Your task to perform on an android device: Open the map Image 0: 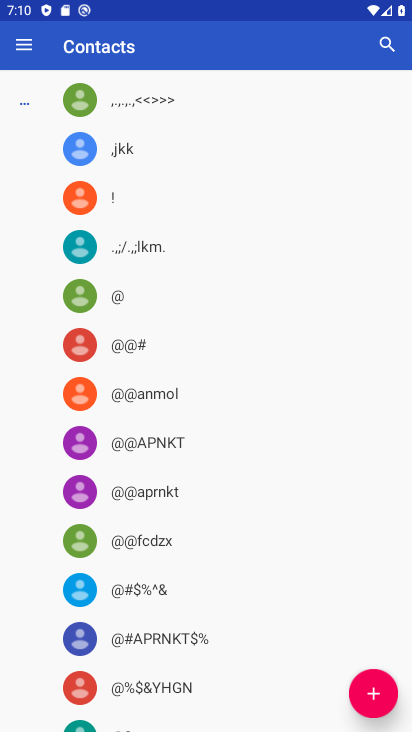
Step 0: press home button
Your task to perform on an android device: Open the map Image 1: 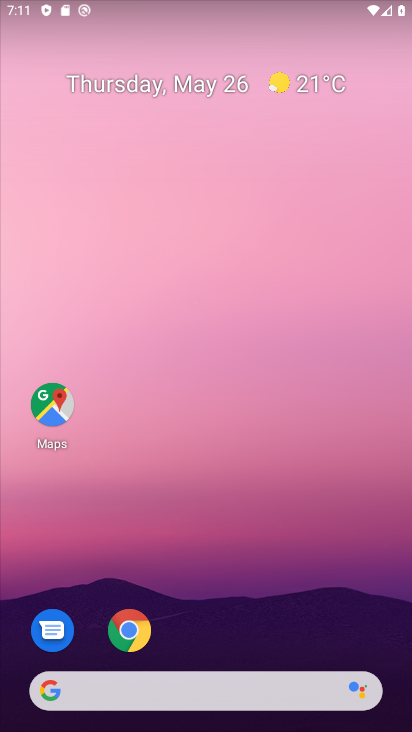
Step 1: click (50, 407)
Your task to perform on an android device: Open the map Image 2: 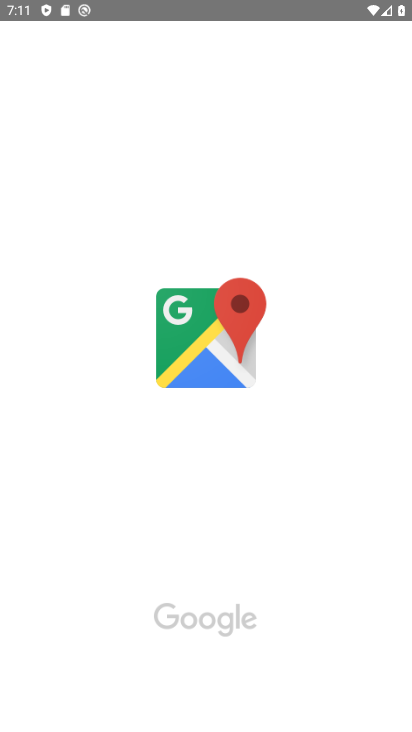
Step 2: click (269, 337)
Your task to perform on an android device: Open the map Image 3: 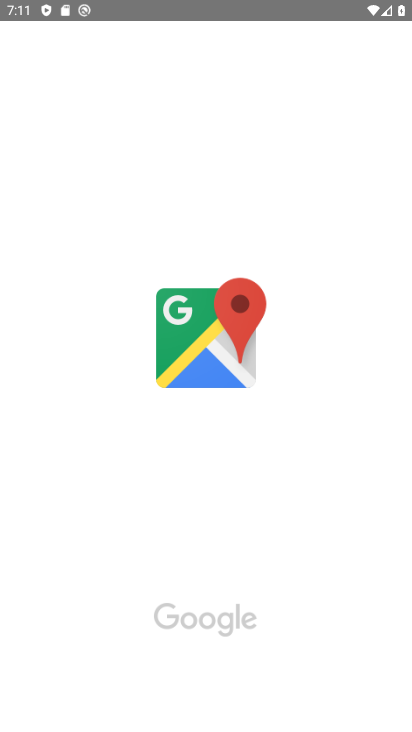
Step 3: click (269, 337)
Your task to perform on an android device: Open the map Image 4: 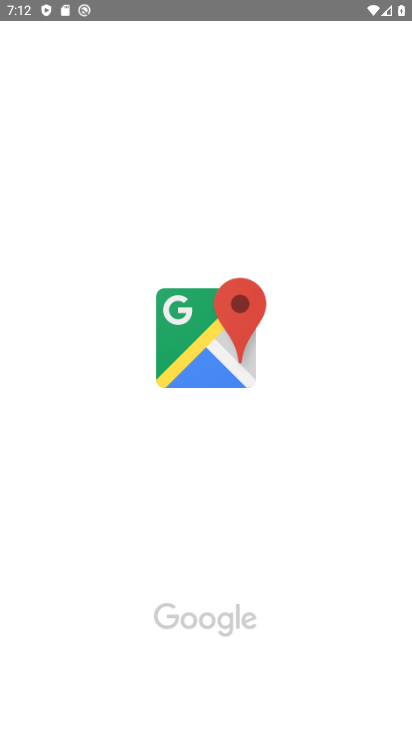
Step 4: task complete